Your task to perform on an android device: Open Google Image 0: 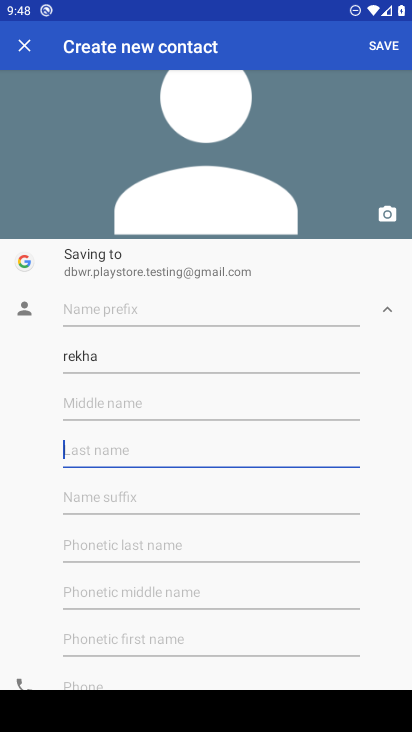
Step 0: press home button
Your task to perform on an android device: Open Google Image 1: 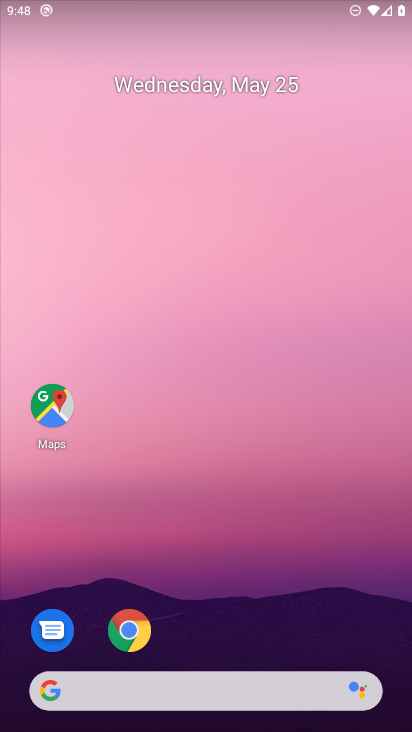
Step 1: drag from (190, 670) to (218, 133)
Your task to perform on an android device: Open Google Image 2: 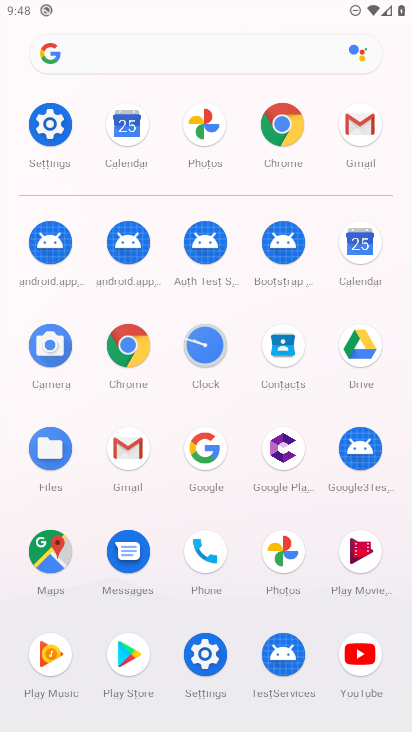
Step 2: click (190, 440)
Your task to perform on an android device: Open Google Image 3: 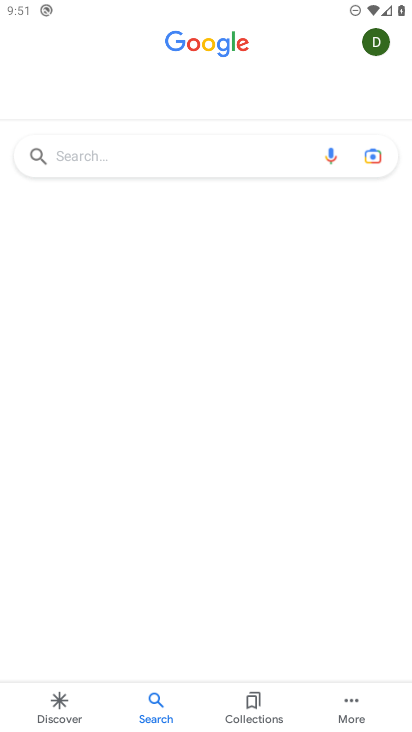
Step 3: task complete